Your task to perform on an android device: Toggle the flashlight Image 0: 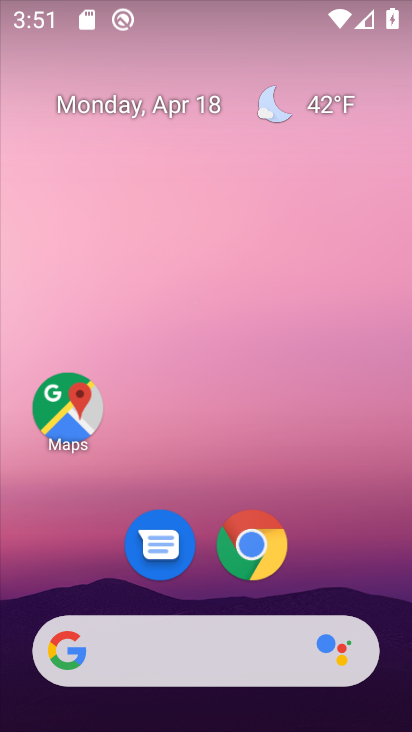
Step 0: drag from (205, 3) to (217, 422)
Your task to perform on an android device: Toggle the flashlight Image 1: 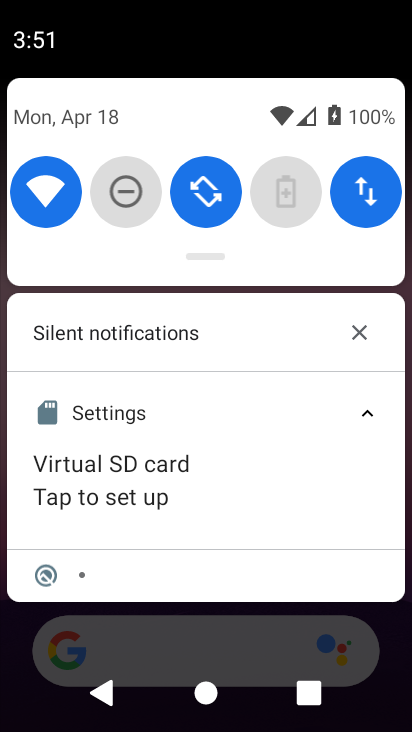
Step 1: drag from (238, 120) to (217, 386)
Your task to perform on an android device: Toggle the flashlight Image 2: 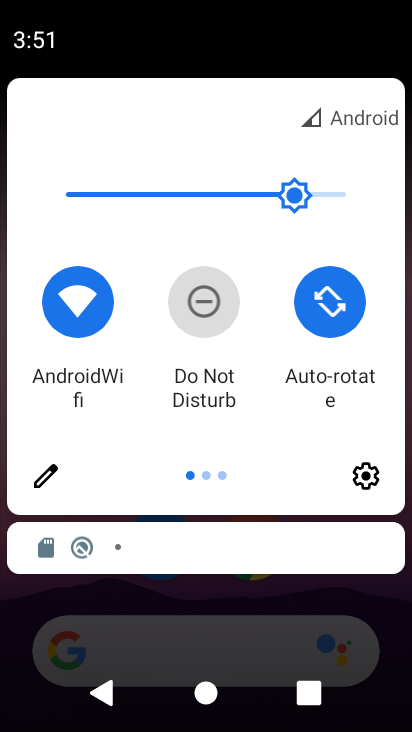
Step 2: click (40, 473)
Your task to perform on an android device: Toggle the flashlight Image 3: 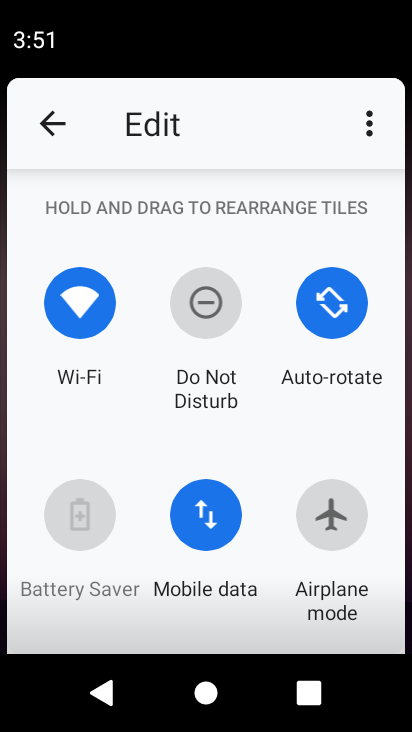
Step 3: task complete